Your task to perform on an android device: turn on notifications settings in the gmail app Image 0: 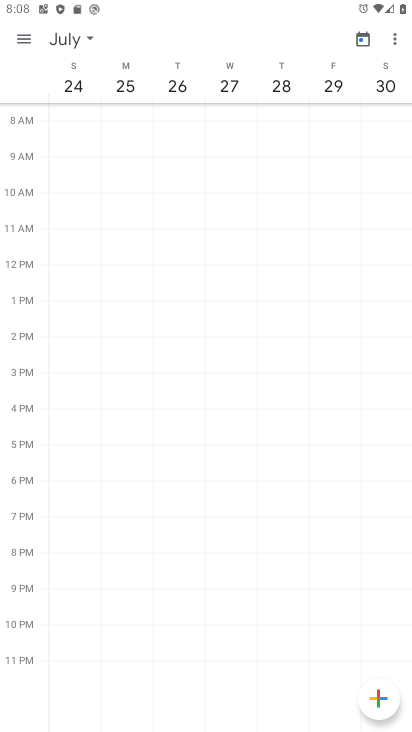
Step 0: press home button
Your task to perform on an android device: turn on notifications settings in the gmail app Image 1: 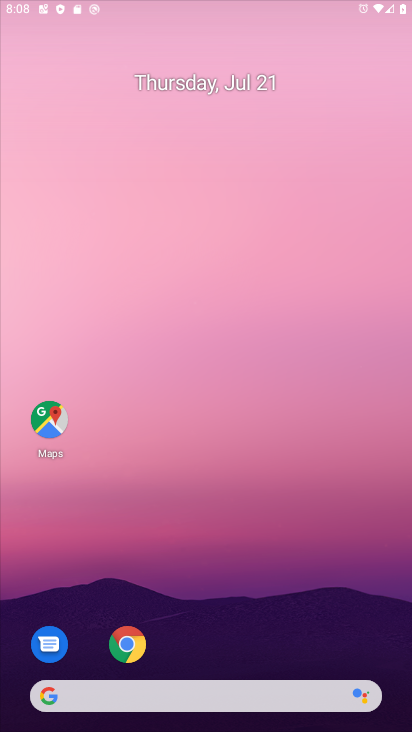
Step 1: drag from (93, 643) to (151, 153)
Your task to perform on an android device: turn on notifications settings in the gmail app Image 2: 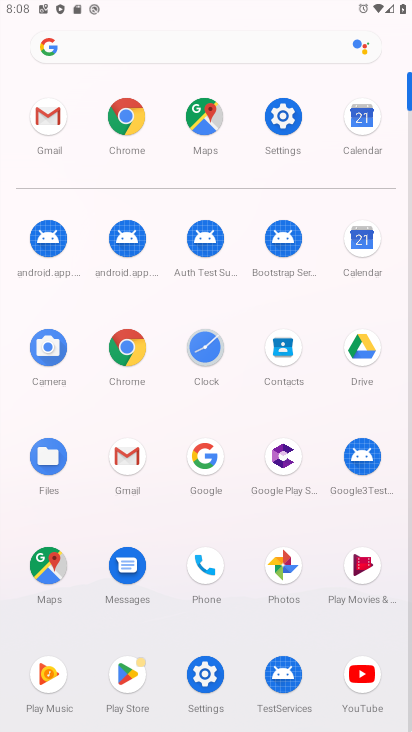
Step 2: click (115, 457)
Your task to perform on an android device: turn on notifications settings in the gmail app Image 3: 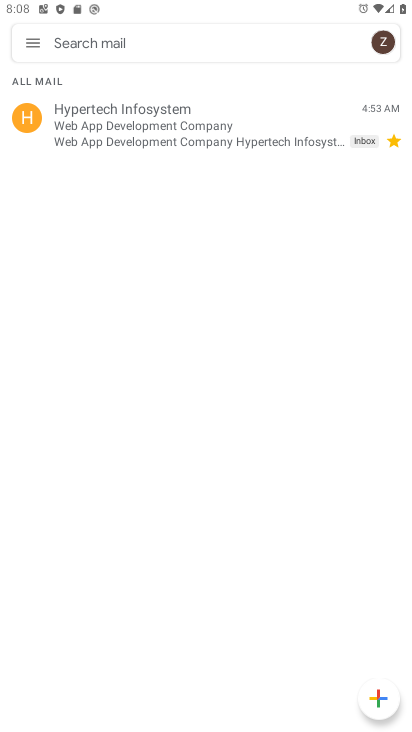
Step 3: click (29, 33)
Your task to perform on an android device: turn on notifications settings in the gmail app Image 4: 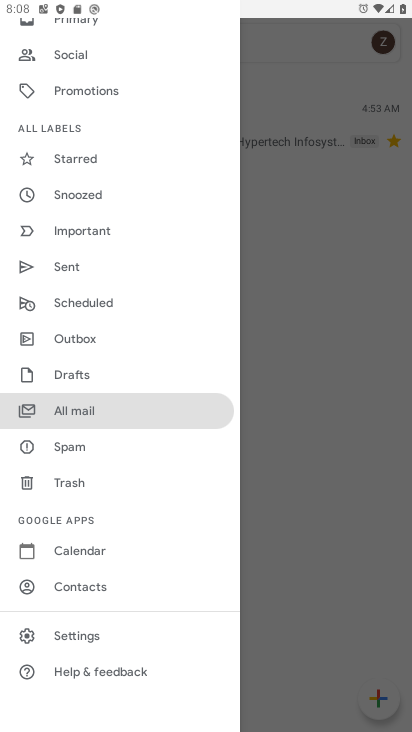
Step 4: click (88, 626)
Your task to perform on an android device: turn on notifications settings in the gmail app Image 5: 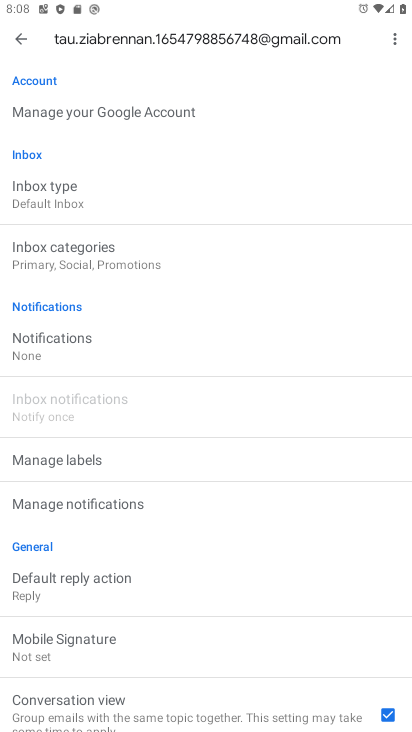
Step 5: click (74, 356)
Your task to perform on an android device: turn on notifications settings in the gmail app Image 6: 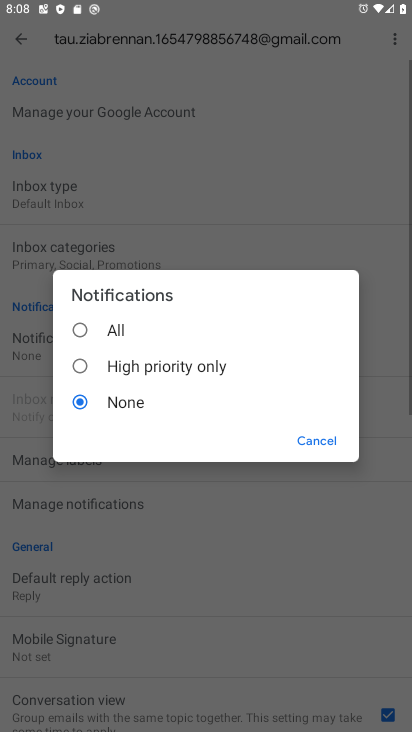
Step 6: click (97, 330)
Your task to perform on an android device: turn on notifications settings in the gmail app Image 7: 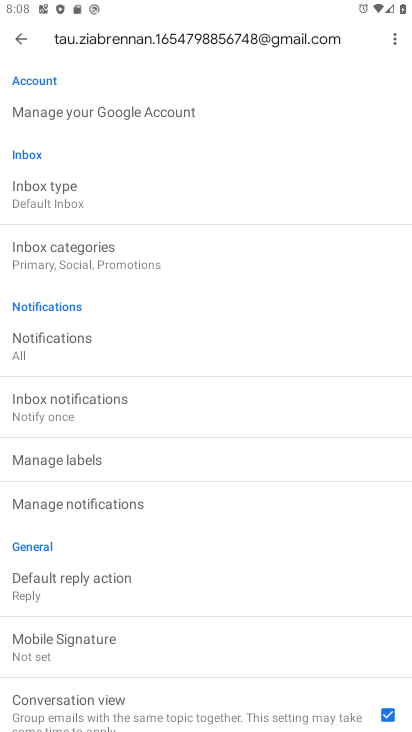
Step 7: click (31, 37)
Your task to perform on an android device: turn on notifications settings in the gmail app Image 8: 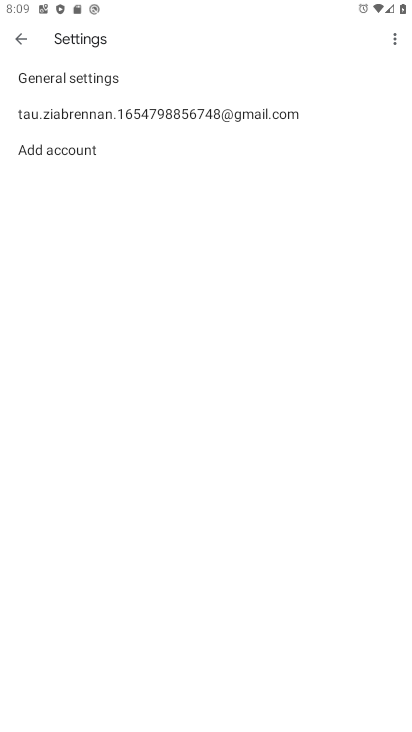
Step 8: click (74, 113)
Your task to perform on an android device: turn on notifications settings in the gmail app Image 9: 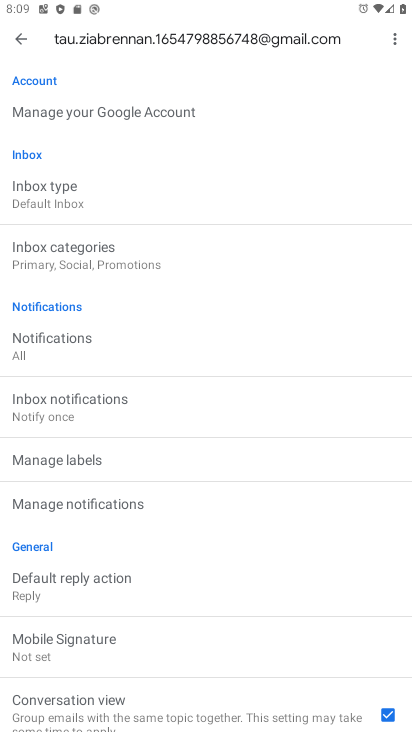
Step 9: click (66, 190)
Your task to perform on an android device: turn on notifications settings in the gmail app Image 10: 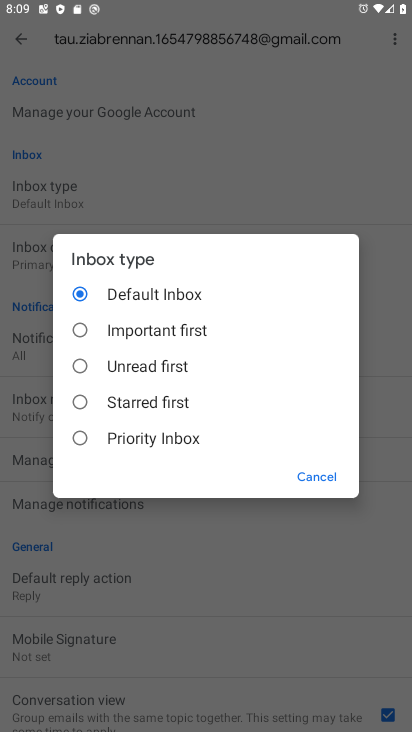
Step 10: click (181, 180)
Your task to perform on an android device: turn on notifications settings in the gmail app Image 11: 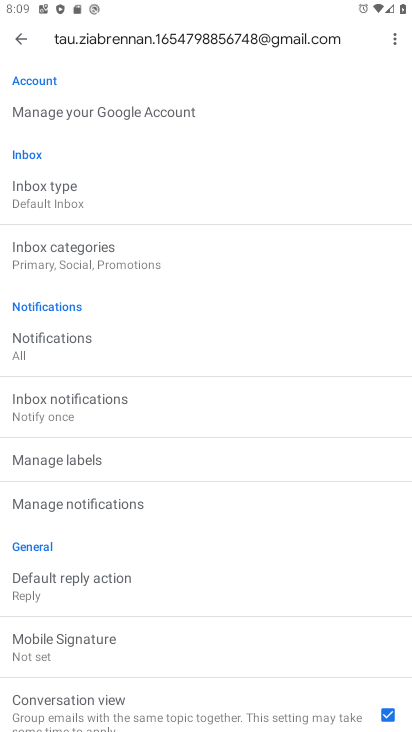
Step 11: click (181, 184)
Your task to perform on an android device: turn on notifications settings in the gmail app Image 12: 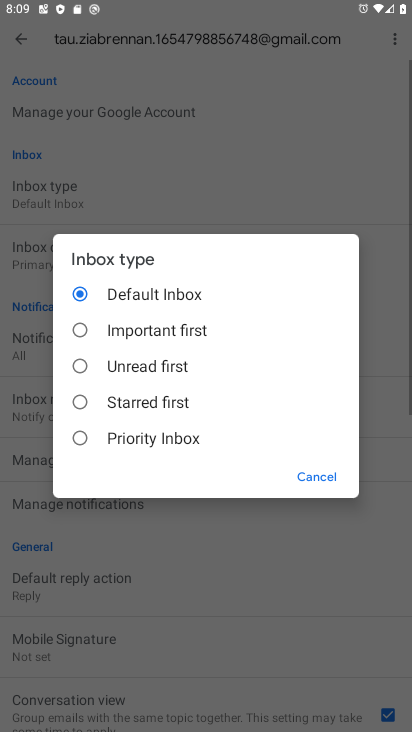
Step 12: click (81, 347)
Your task to perform on an android device: turn on notifications settings in the gmail app Image 13: 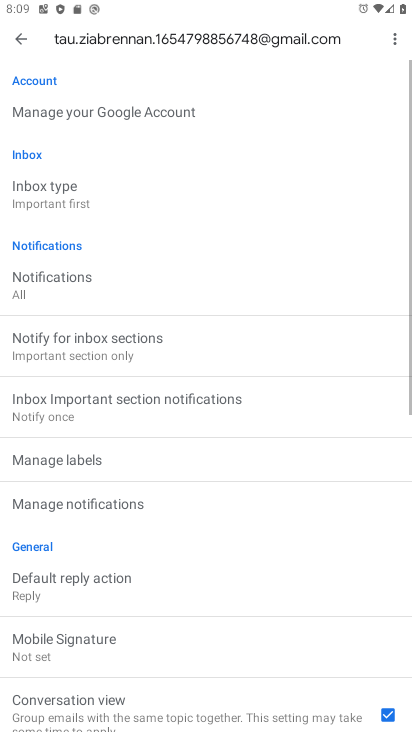
Step 13: task complete